Your task to perform on an android device: add a label to a message in the gmail app Image 0: 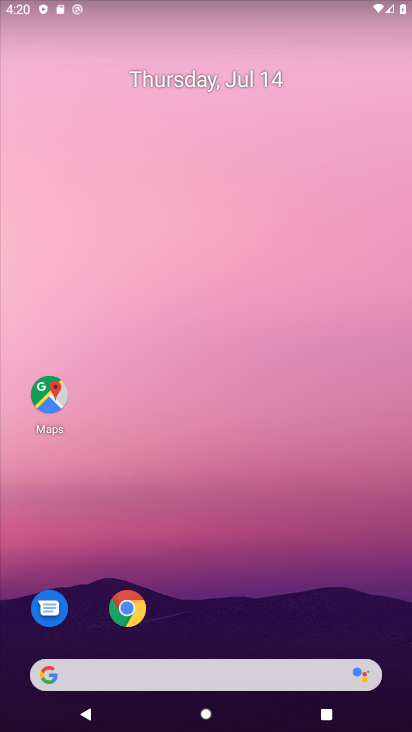
Step 0: drag from (195, 617) to (171, 402)
Your task to perform on an android device: add a label to a message in the gmail app Image 1: 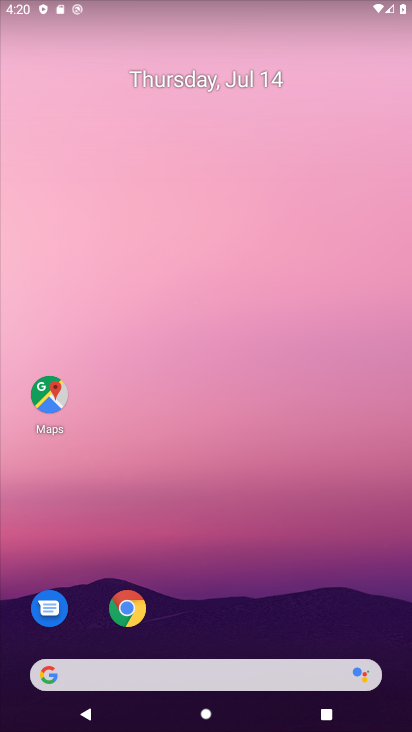
Step 1: drag from (229, 619) to (199, 296)
Your task to perform on an android device: add a label to a message in the gmail app Image 2: 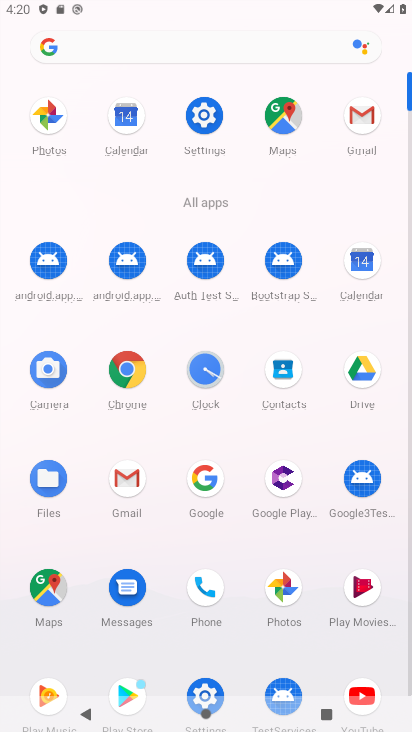
Step 2: click (352, 136)
Your task to perform on an android device: add a label to a message in the gmail app Image 3: 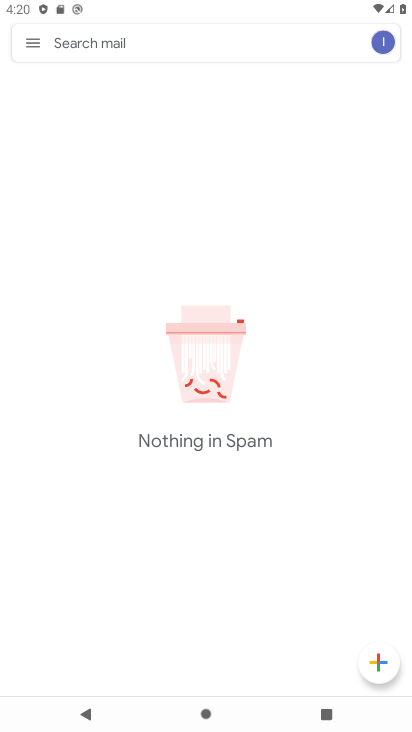
Step 3: click (31, 46)
Your task to perform on an android device: add a label to a message in the gmail app Image 4: 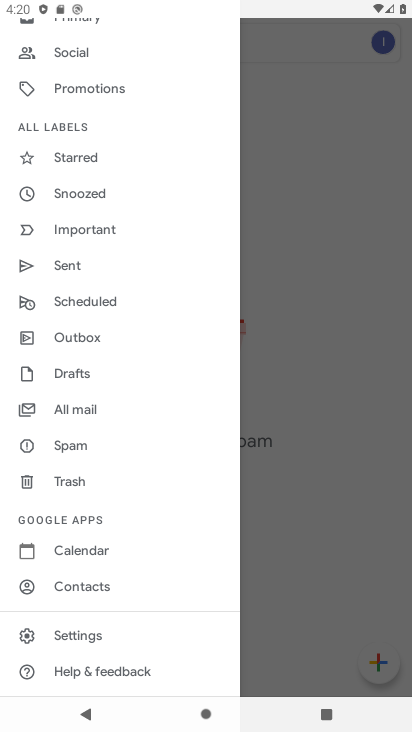
Step 4: click (80, 413)
Your task to perform on an android device: add a label to a message in the gmail app Image 5: 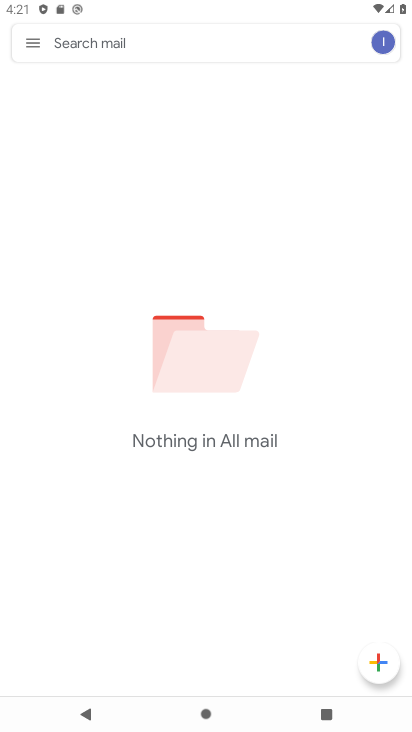
Step 5: task complete